Your task to perform on an android device: change the clock display to analog Image 0: 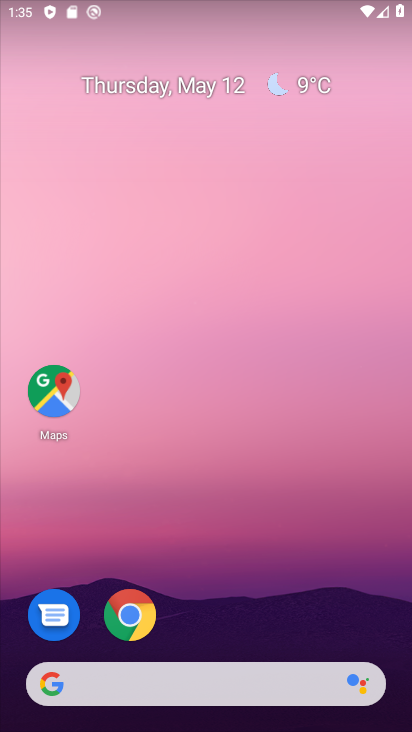
Step 0: drag from (267, 665) to (287, 254)
Your task to perform on an android device: change the clock display to analog Image 1: 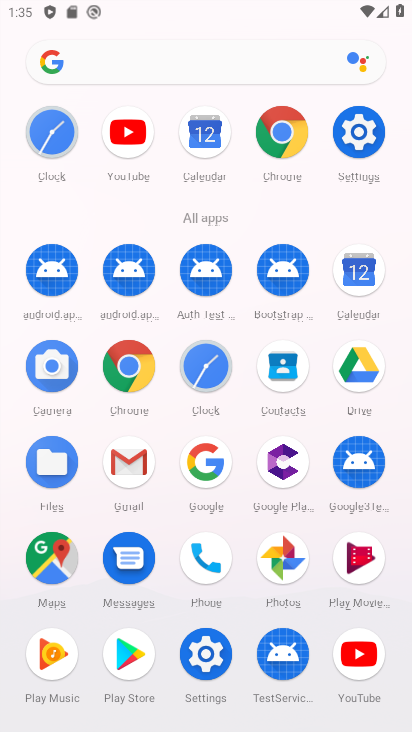
Step 1: click (214, 374)
Your task to perform on an android device: change the clock display to analog Image 2: 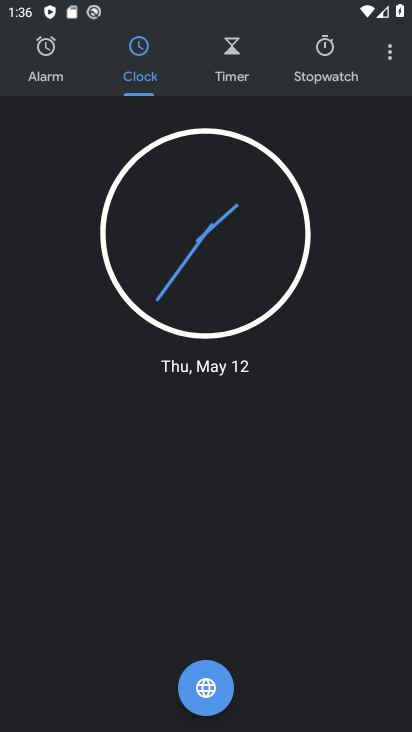
Step 2: click (388, 51)
Your task to perform on an android device: change the clock display to analog Image 3: 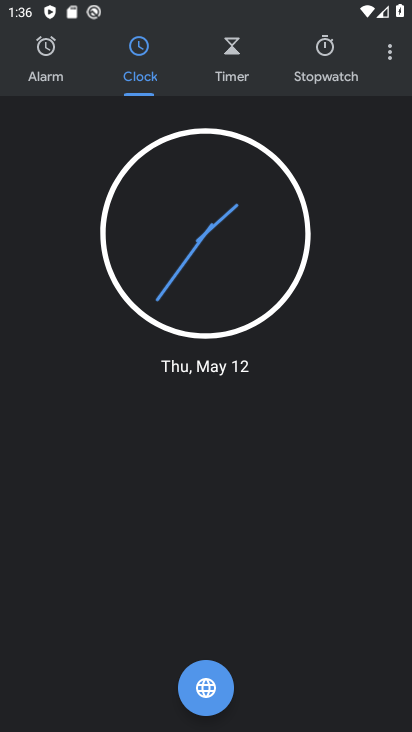
Step 3: click (383, 69)
Your task to perform on an android device: change the clock display to analog Image 4: 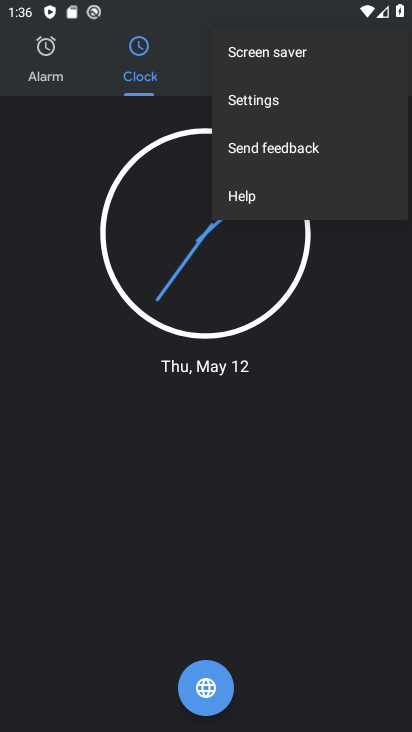
Step 4: click (286, 108)
Your task to perform on an android device: change the clock display to analog Image 5: 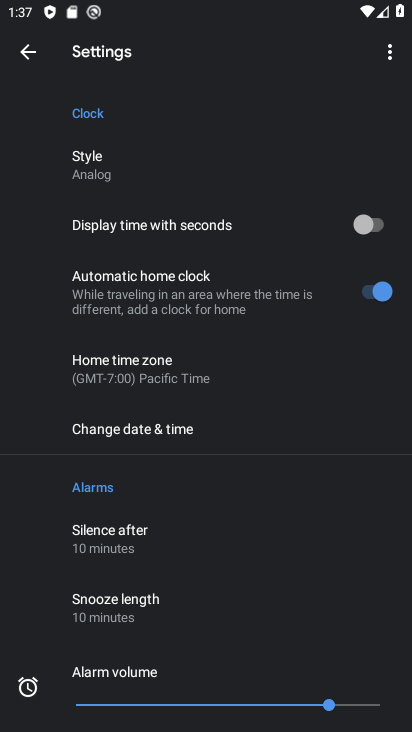
Step 5: click (144, 161)
Your task to perform on an android device: change the clock display to analog Image 6: 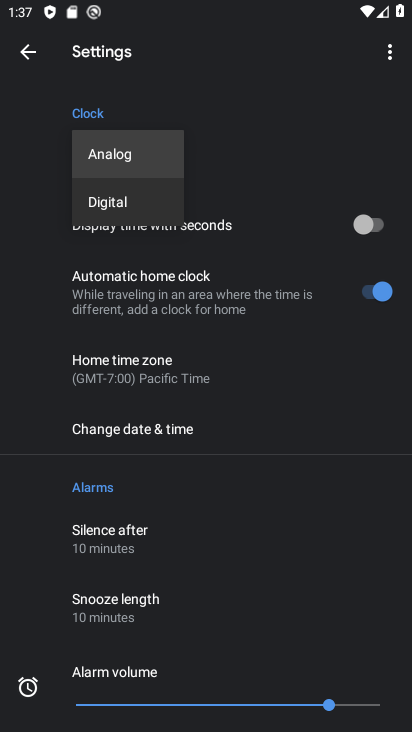
Step 6: click (135, 162)
Your task to perform on an android device: change the clock display to analog Image 7: 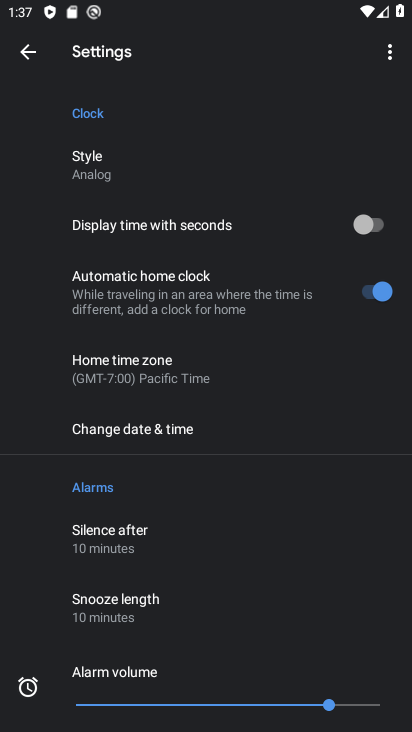
Step 7: task complete